Your task to perform on an android device: What's the weather? Image 0: 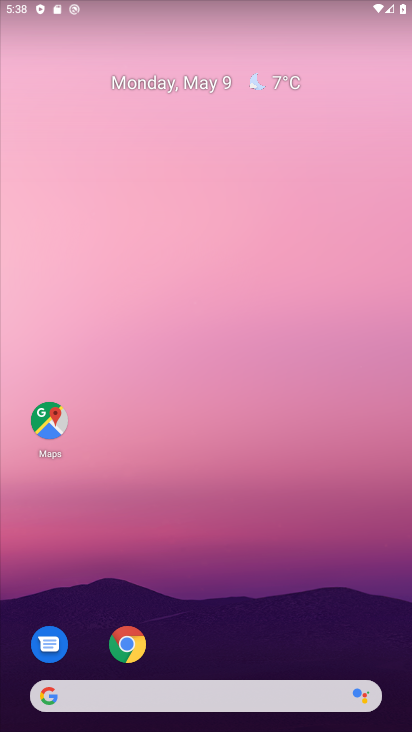
Step 0: click (279, 80)
Your task to perform on an android device: What's the weather? Image 1: 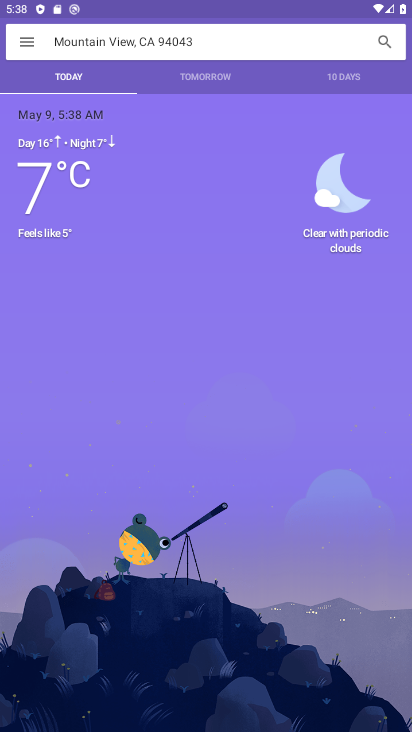
Step 1: task complete